Your task to perform on an android device: What's the weather today? Image 0: 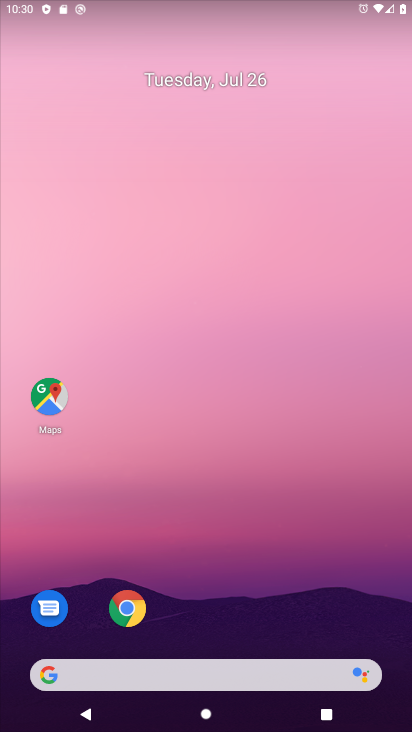
Step 0: drag from (218, 728) to (237, 115)
Your task to perform on an android device: What's the weather today? Image 1: 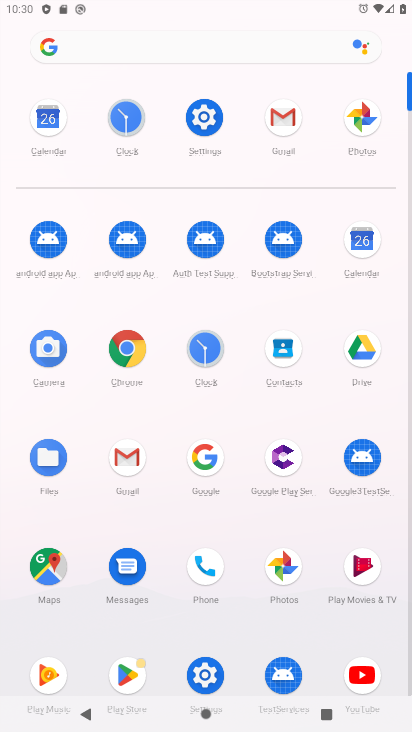
Step 1: click (204, 459)
Your task to perform on an android device: What's the weather today? Image 2: 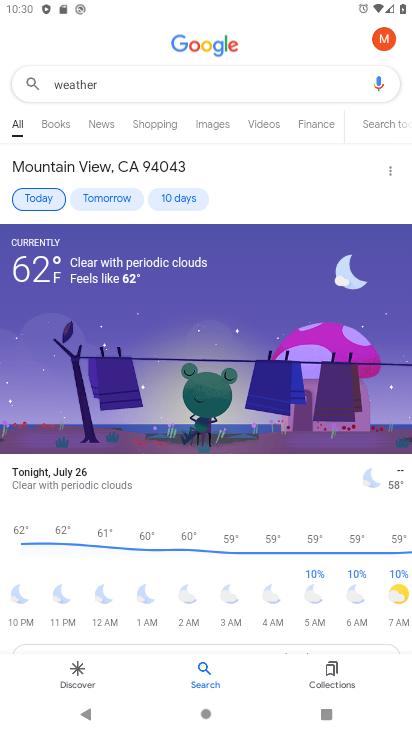
Step 2: click (38, 193)
Your task to perform on an android device: What's the weather today? Image 3: 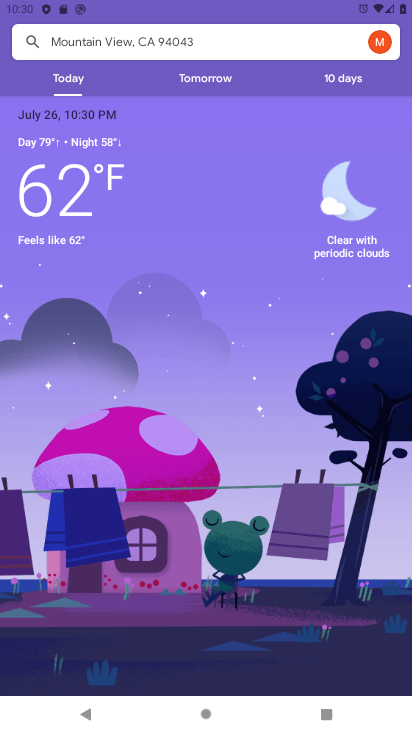
Step 3: task complete